Your task to perform on an android device: stop showing notifications on the lock screen Image 0: 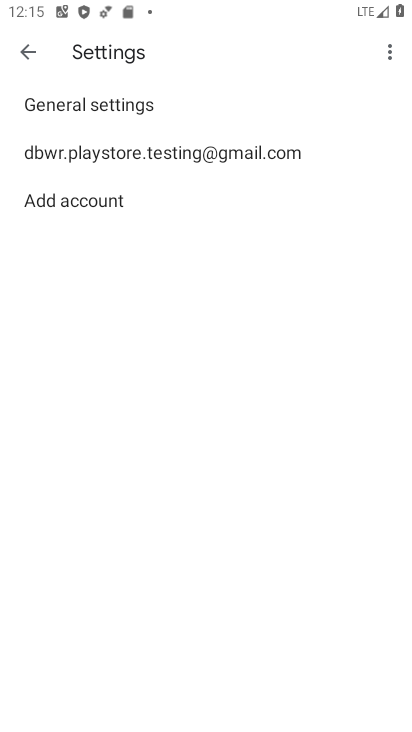
Step 0: press home button
Your task to perform on an android device: stop showing notifications on the lock screen Image 1: 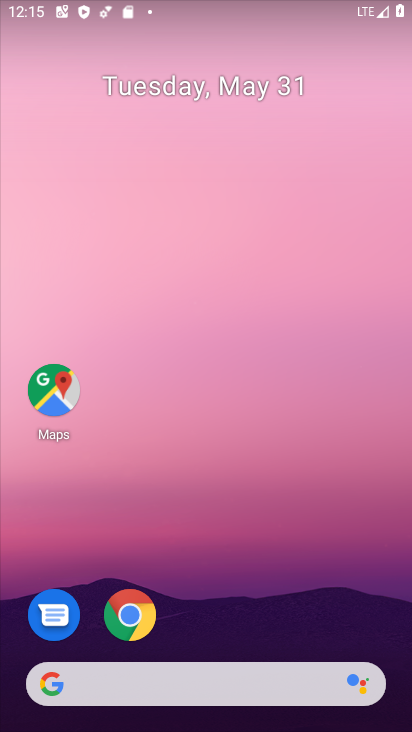
Step 1: drag from (216, 563) to (304, 193)
Your task to perform on an android device: stop showing notifications on the lock screen Image 2: 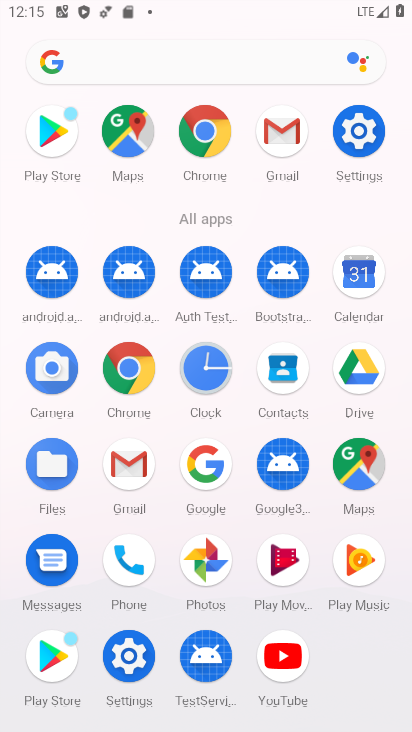
Step 2: click (122, 661)
Your task to perform on an android device: stop showing notifications on the lock screen Image 3: 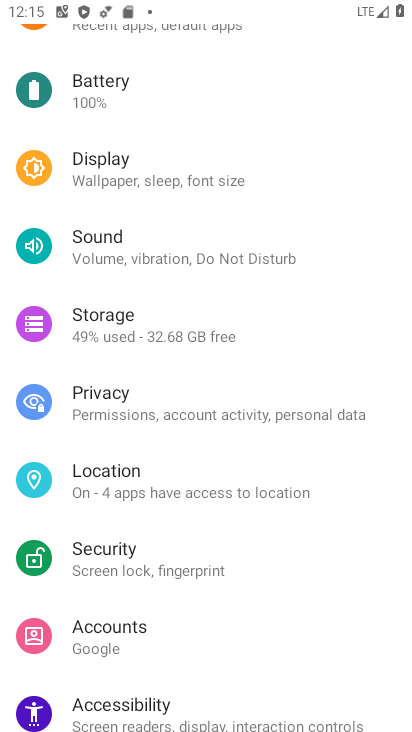
Step 3: drag from (185, 223) to (79, 683)
Your task to perform on an android device: stop showing notifications on the lock screen Image 4: 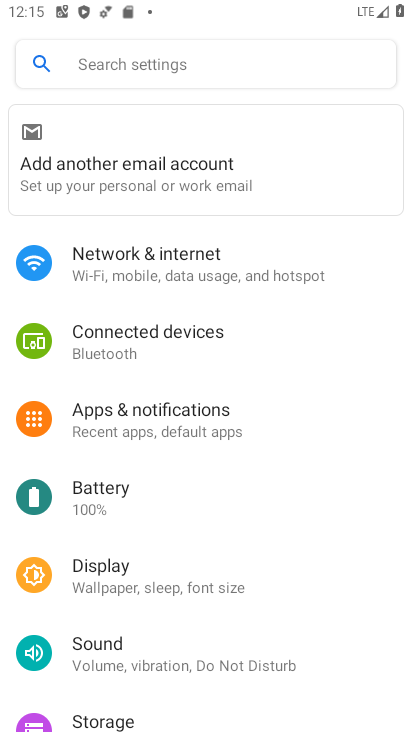
Step 4: click (181, 428)
Your task to perform on an android device: stop showing notifications on the lock screen Image 5: 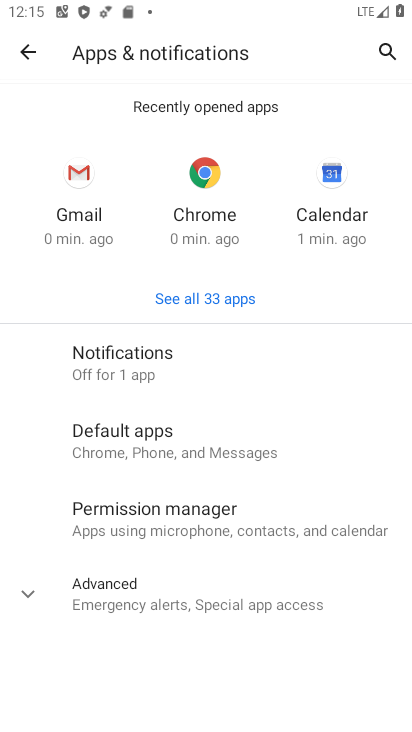
Step 5: click (133, 365)
Your task to perform on an android device: stop showing notifications on the lock screen Image 6: 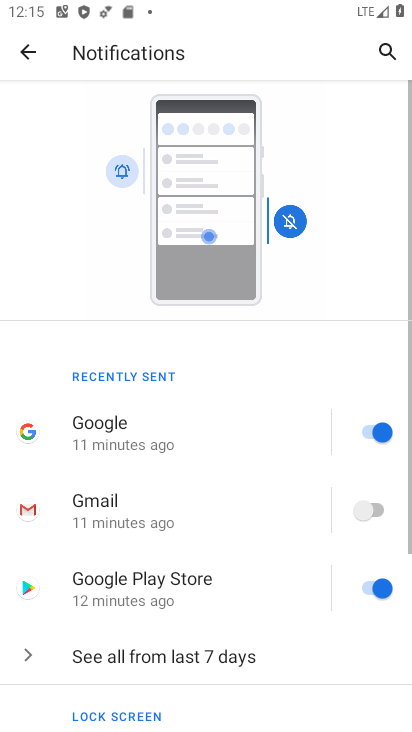
Step 6: drag from (158, 629) to (179, 537)
Your task to perform on an android device: stop showing notifications on the lock screen Image 7: 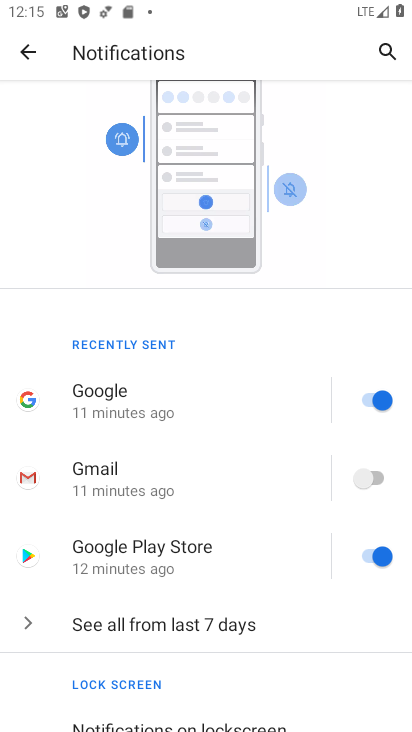
Step 7: drag from (205, 597) to (240, 382)
Your task to perform on an android device: stop showing notifications on the lock screen Image 8: 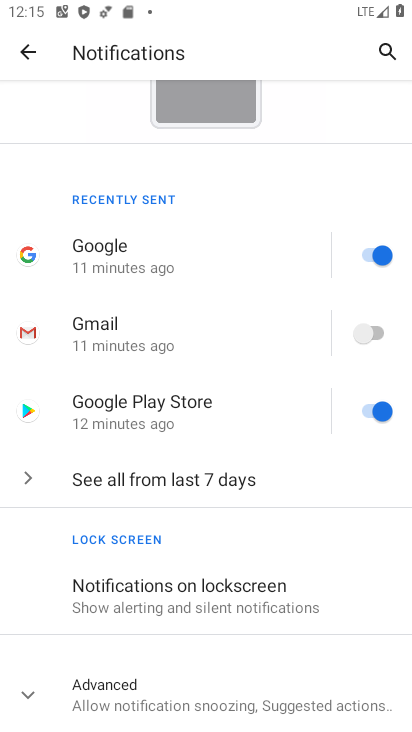
Step 8: click (179, 596)
Your task to perform on an android device: stop showing notifications on the lock screen Image 9: 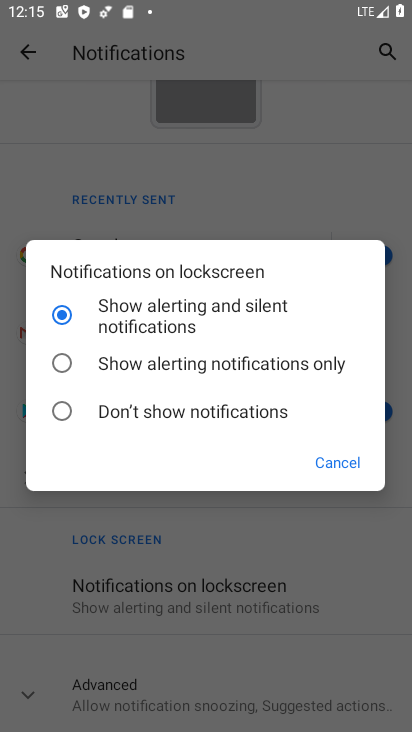
Step 9: click (100, 409)
Your task to perform on an android device: stop showing notifications on the lock screen Image 10: 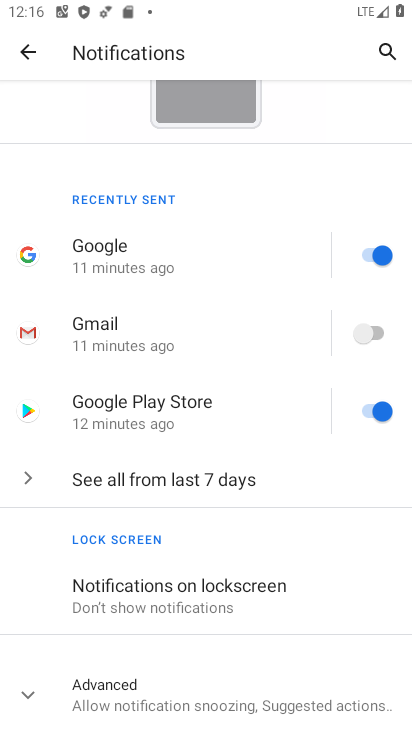
Step 10: task complete